Your task to perform on an android device: change your default location settings in chrome Image 0: 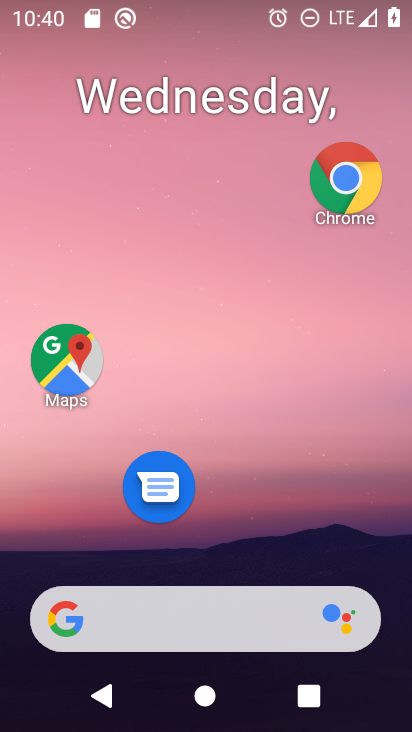
Step 0: drag from (161, 609) to (222, 171)
Your task to perform on an android device: change your default location settings in chrome Image 1: 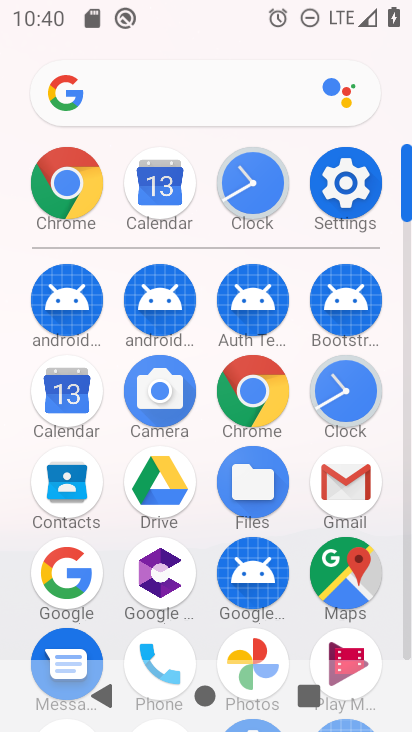
Step 1: click (268, 396)
Your task to perform on an android device: change your default location settings in chrome Image 2: 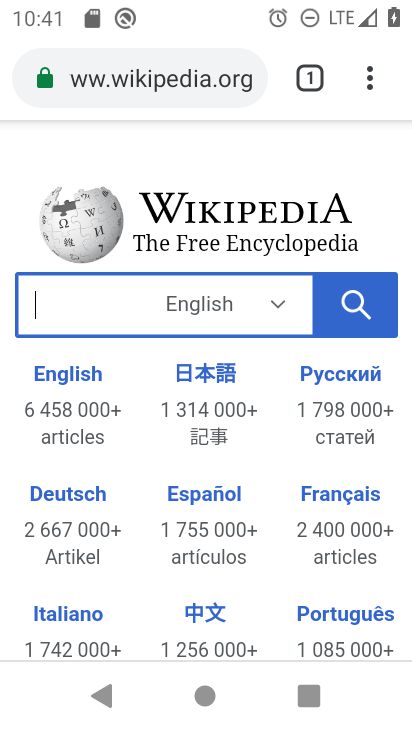
Step 2: click (373, 71)
Your task to perform on an android device: change your default location settings in chrome Image 3: 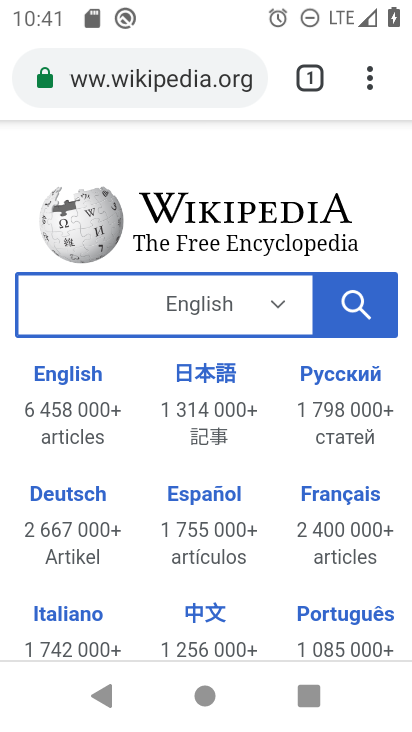
Step 3: click (367, 85)
Your task to perform on an android device: change your default location settings in chrome Image 4: 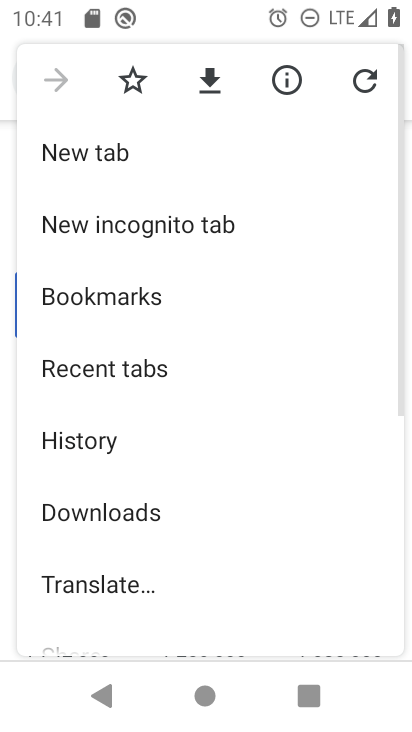
Step 4: drag from (179, 524) to (252, 140)
Your task to perform on an android device: change your default location settings in chrome Image 5: 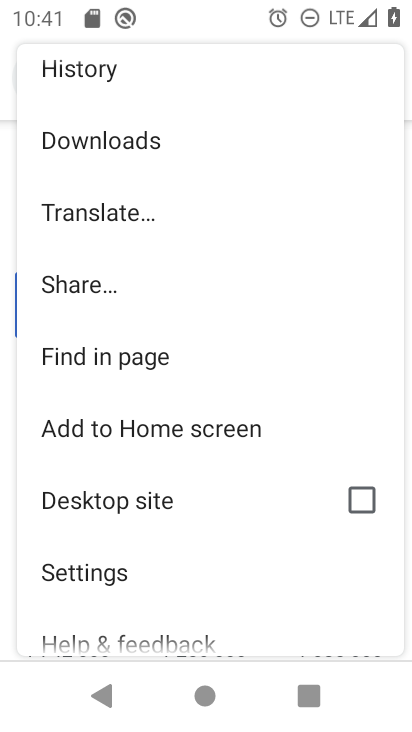
Step 5: click (107, 577)
Your task to perform on an android device: change your default location settings in chrome Image 6: 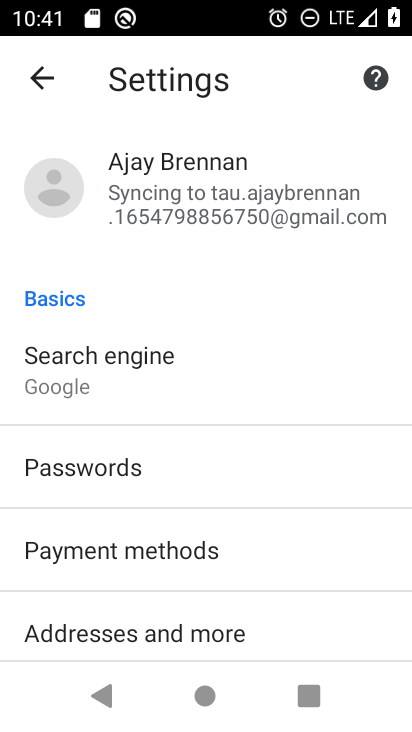
Step 6: drag from (143, 578) to (183, 352)
Your task to perform on an android device: change your default location settings in chrome Image 7: 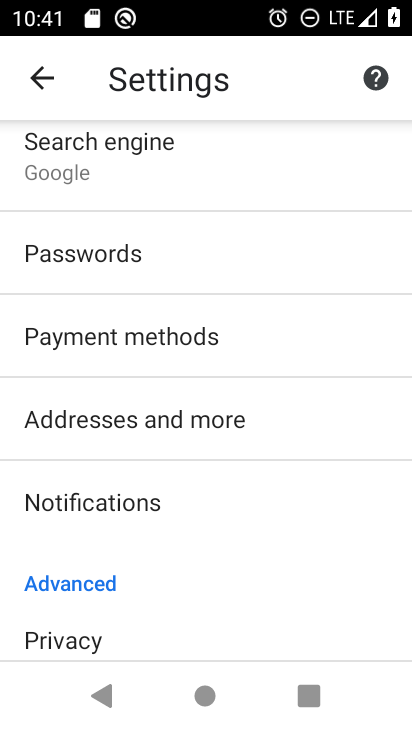
Step 7: drag from (140, 375) to (99, 718)
Your task to perform on an android device: change your default location settings in chrome Image 8: 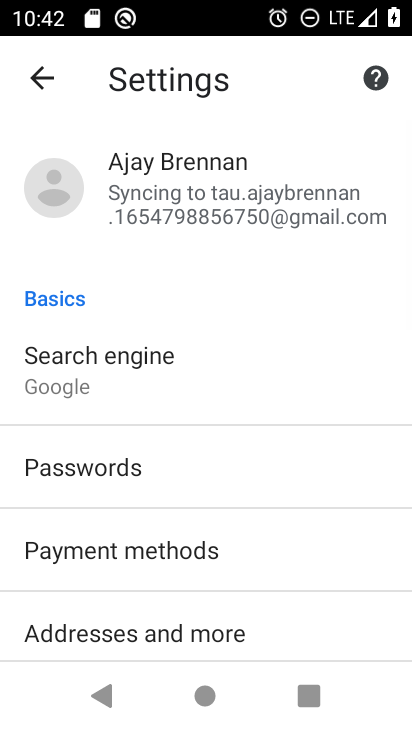
Step 8: drag from (133, 502) to (172, 94)
Your task to perform on an android device: change your default location settings in chrome Image 9: 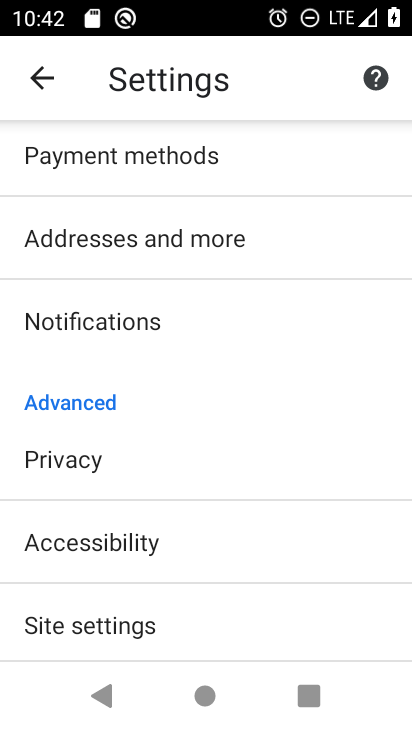
Step 9: click (116, 624)
Your task to perform on an android device: change your default location settings in chrome Image 10: 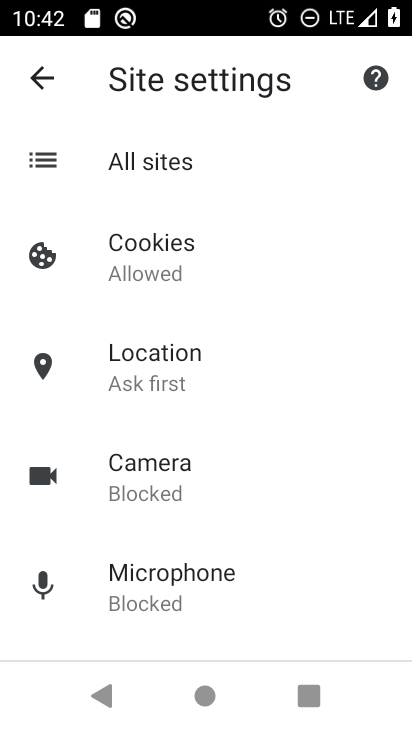
Step 10: drag from (183, 547) to (225, 344)
Your task to perform on an android device: change your default location settings in chrome Image 11: 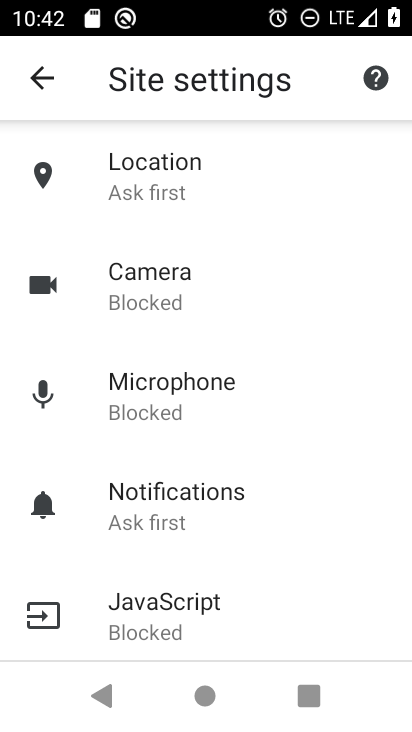
Step 11: click (214, 182)
Your task to perform on an android device: change your default location settings in chrome Image 12: 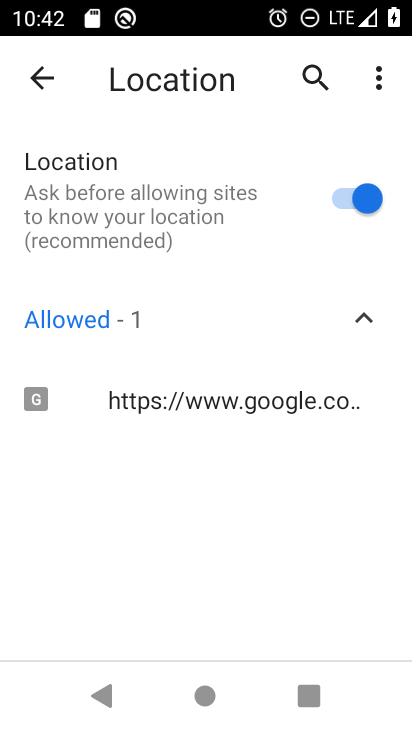
Step 12: click (350, 207)
Your task to perform on an android device: change your default location settings in chrome Image 13: 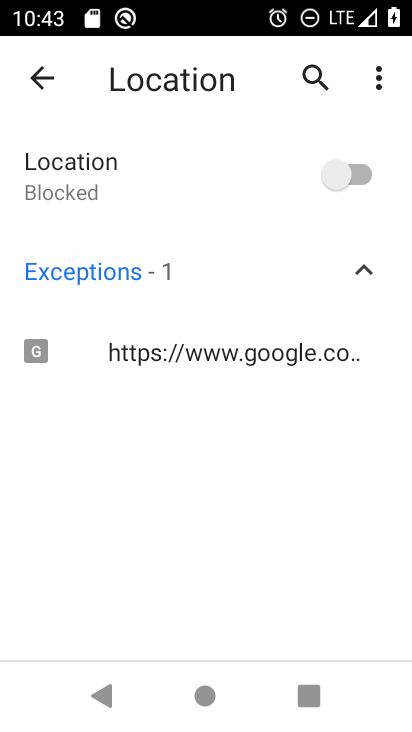
Step 13: task complete